Your task to perform on an android device: Do I have any events this weekend? Image 0: 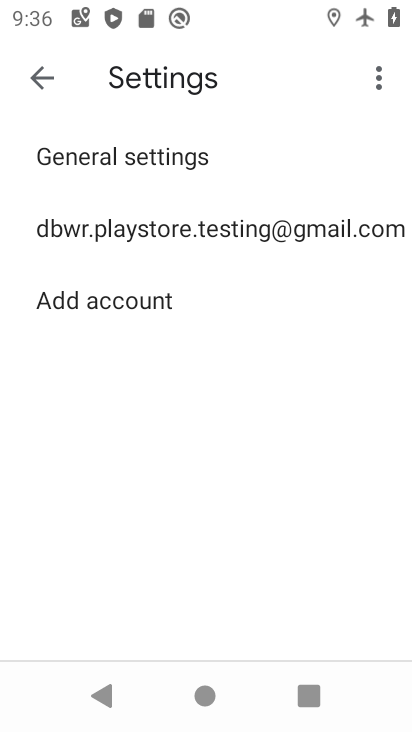
Step 0: press home button
Your task to perform on an android device: Do I have any events this weekend? Image 1: 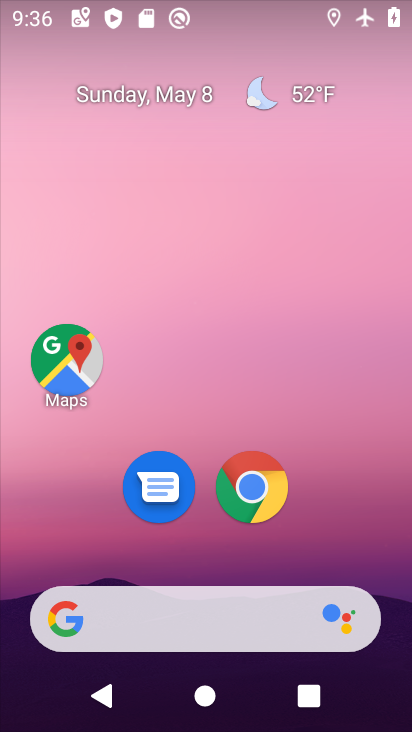
Step 1: drag from (395, 612) to (265, 90)
Your task to perform on an android device: Do I have any events this weekend? Image 2: 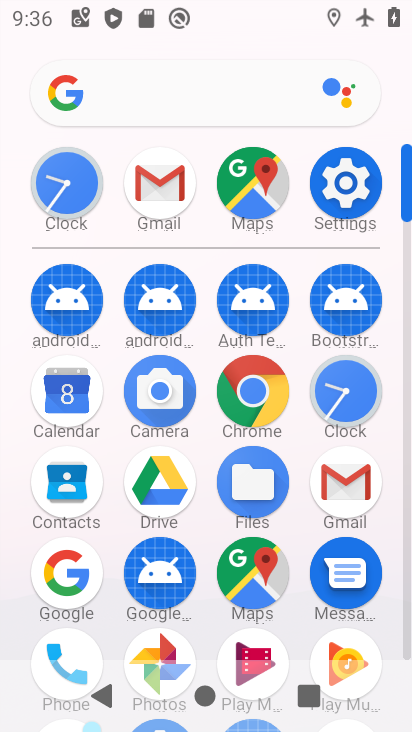
Step 2: click (348, 420)
Your task to perform on an android device: Do I have any events this weekend? Image 3: 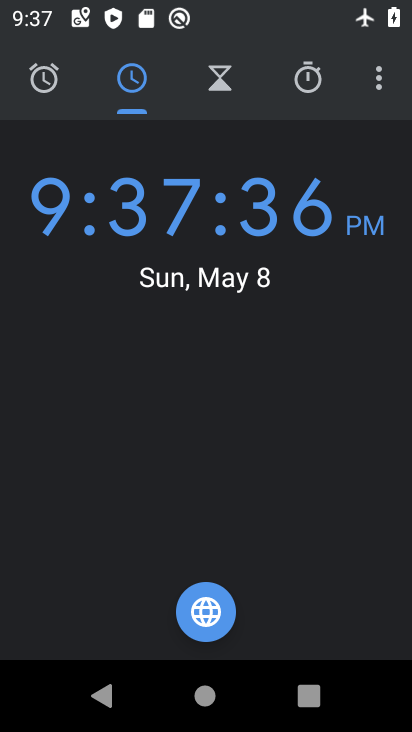
Step 3: click (380, 77)
Your task to perform on an android device: Do I have any events this weekend? Image 4: 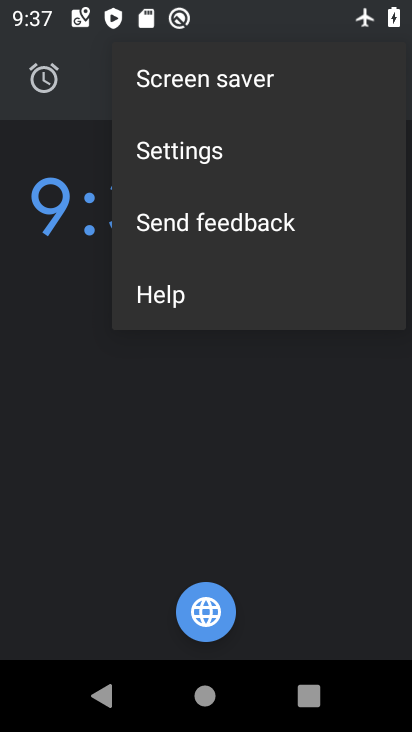
Step 4: click (12, 209)
Your task to perform on an android device: Do I have any events this weekend? Image 5: 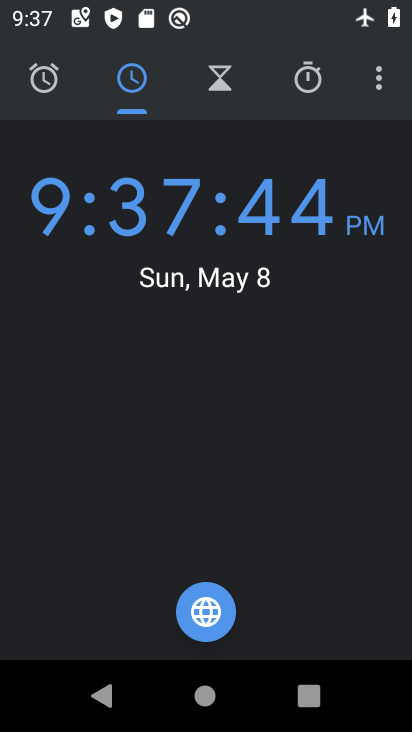
Step 5: press home button
Your task to perform on an android device: Do I have any events this weekend? Image 6: 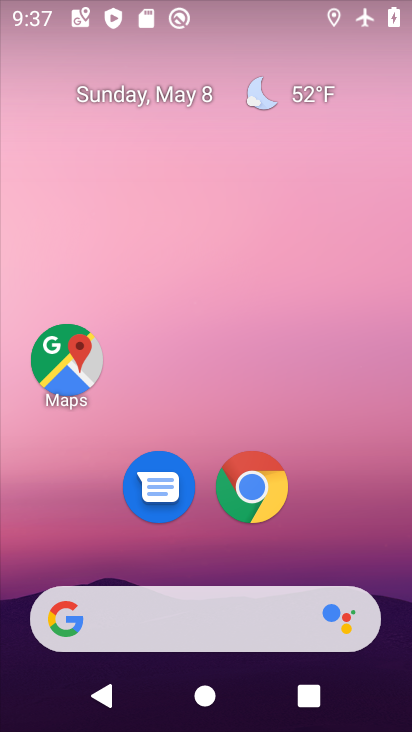
Step 6: drag from (356, 565) to (295, 22)
Your task to perform on an android device: Do I have any events this weekend? Image 7: 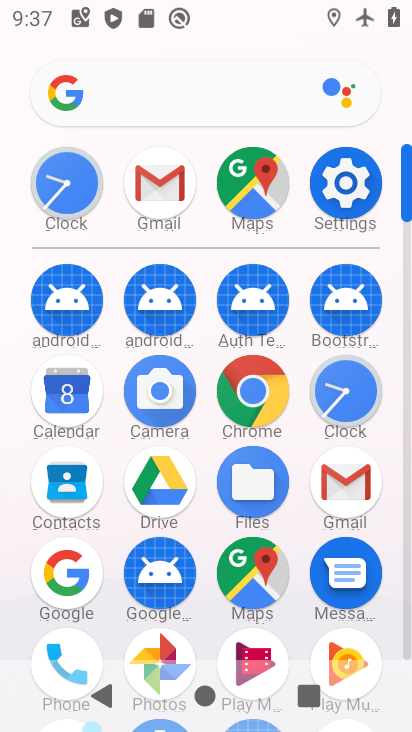
Step 7: click (90, 392)
Your task to perform on an android device: Do I have any events this weekend? Image 8: 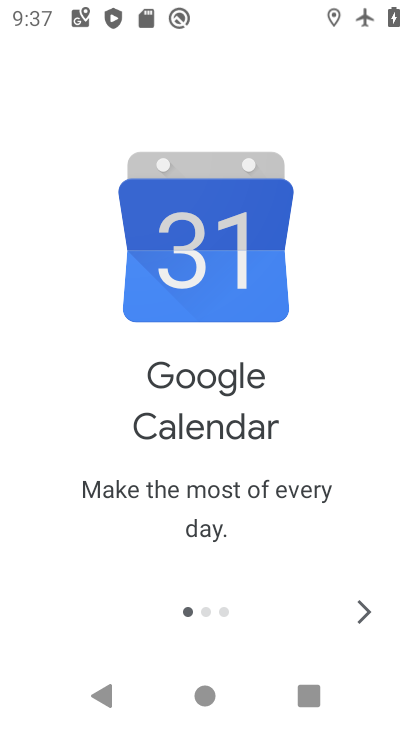
Step 8: click (363, 611)
Your task to perform on an android device: Do I have any events this weekend? Image 9: 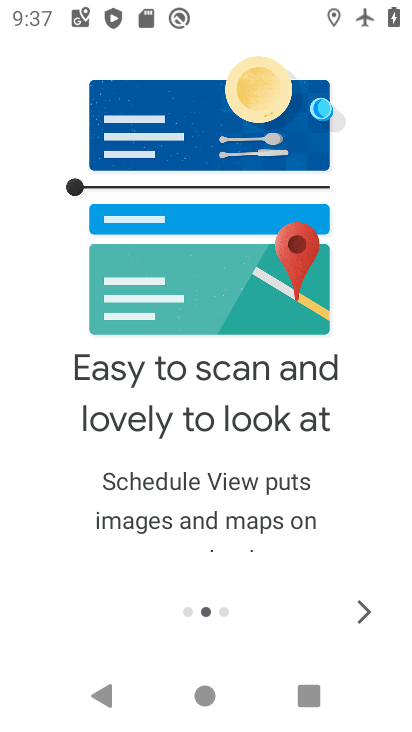
Step 9: click (363, 611)
Your task to perform on an android device: Do I have any events this weekend? Image 10: 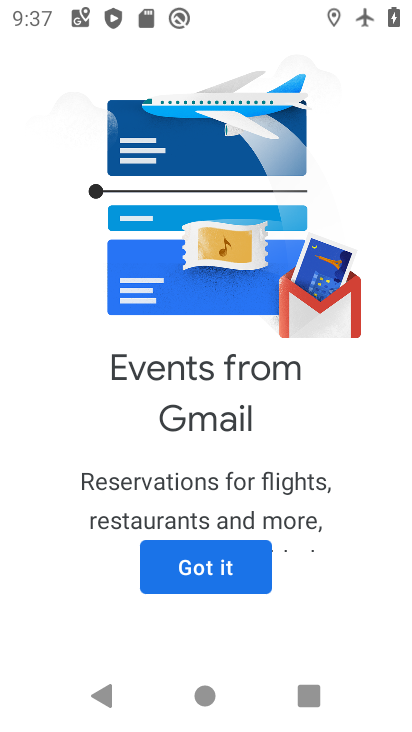
Step 10: click (206, 563)
Your task to perform on an android device: Do I have any events this weekend? Image 11: 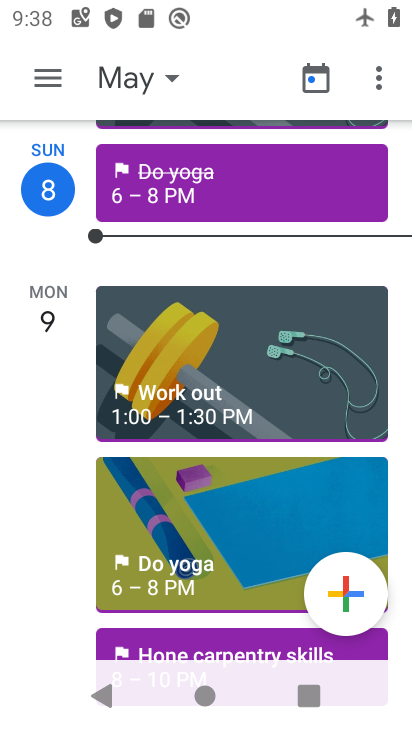
Step 11: click (42, 323)
Your task to perform on an android device: Do I have any events this weekend? Image 12: 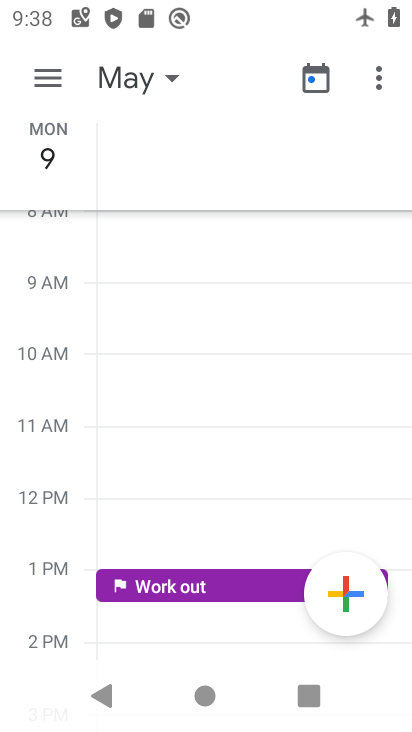
Step 12: task complete